Your task to perform on an android device: set the timer Image 0: 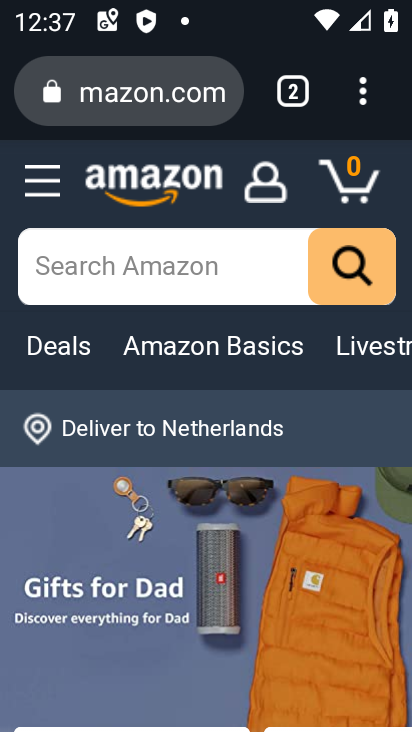
Step 0: press home button
Your task to perform on an android device: set the timer Image 1: 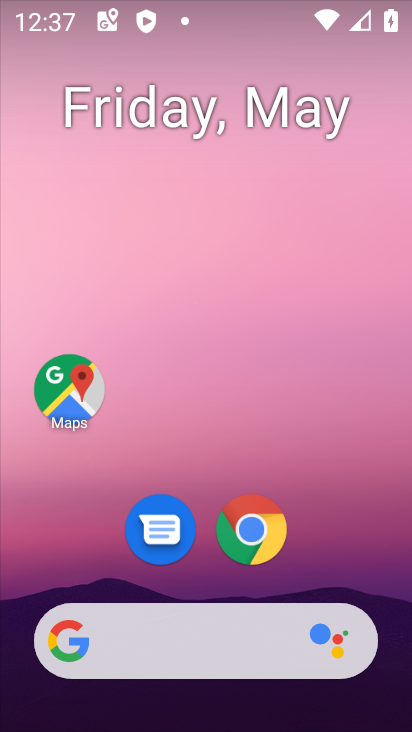
Step 1: drag from (349, 528) to (323, 248)
Your task to perform on an android device: set the timer Image 2: 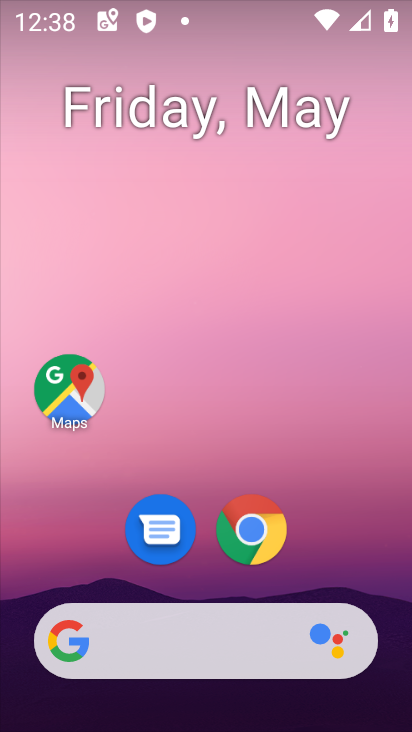
Step 2: drag from (315, 548) to (278, 3)
Your task to perform on an android device: set the timer Image 3: 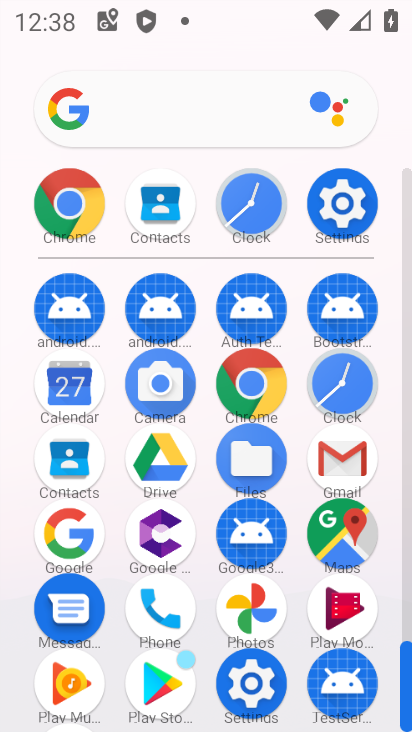
Step 3: click (262, 197)
Your task to perform on an android device: set the timer Image 4: 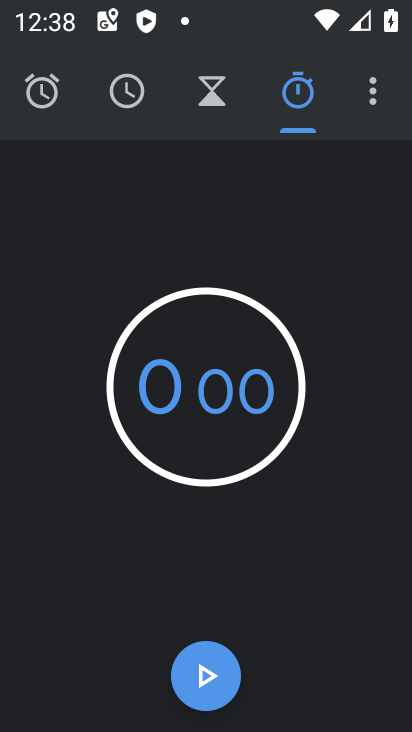
Step 4: click (215, 97)
Your task to perform on an android device: set the timer Image 5: 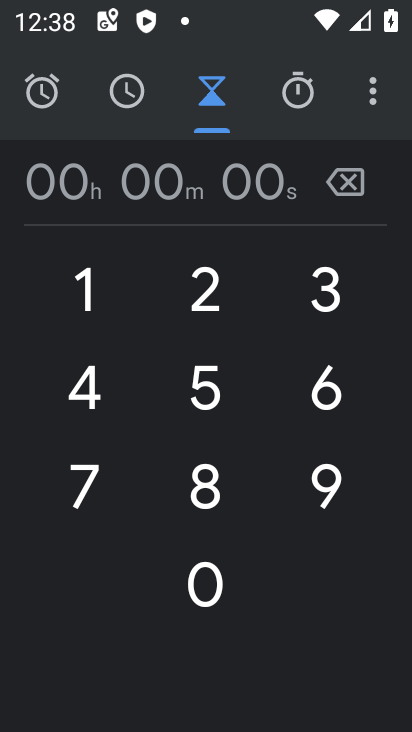
Step 5: task complete